Your task to perform on an android device: empty trash in the gmail app Image 0: 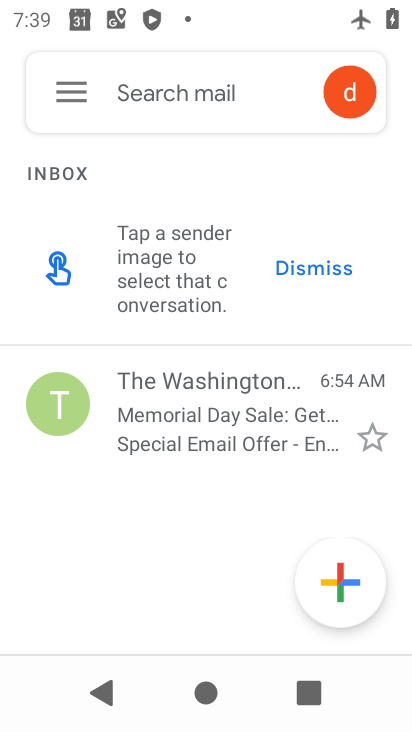
Step 0: click (64, 83)
Your task to perform on an android device: empty trash in the gmail app Image 1: 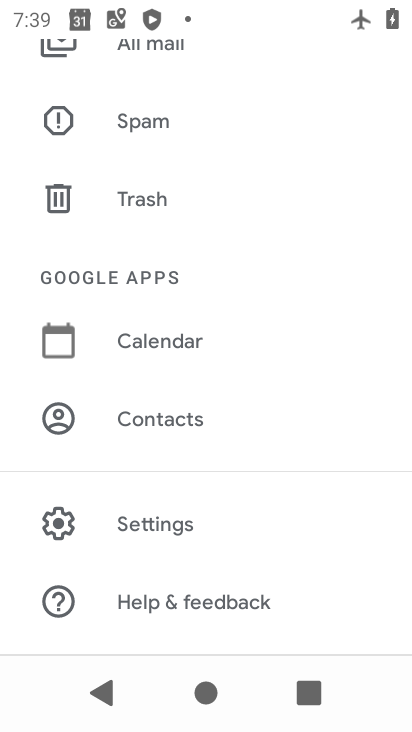
Step 1: click (148, 198)
Your task to perform on an android device: empty trash in the gmail app Image 2: 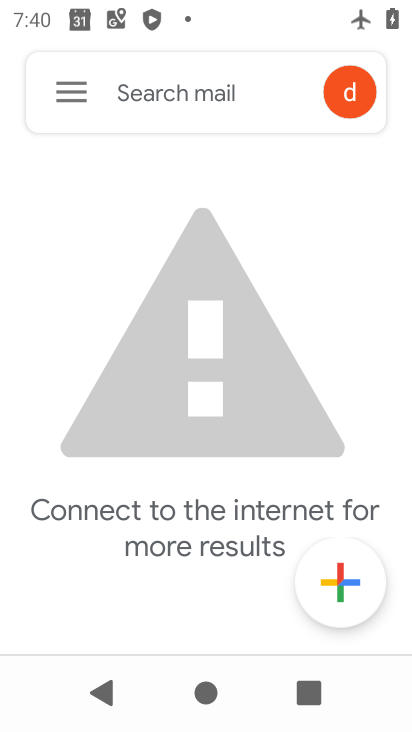
Step 2: task complete